Your task to perform on an android device: Clear all items from cart on walmart. Search for logitech g903 on walmart, select the first entry, add it to the cart, then select checkout. Image 0: 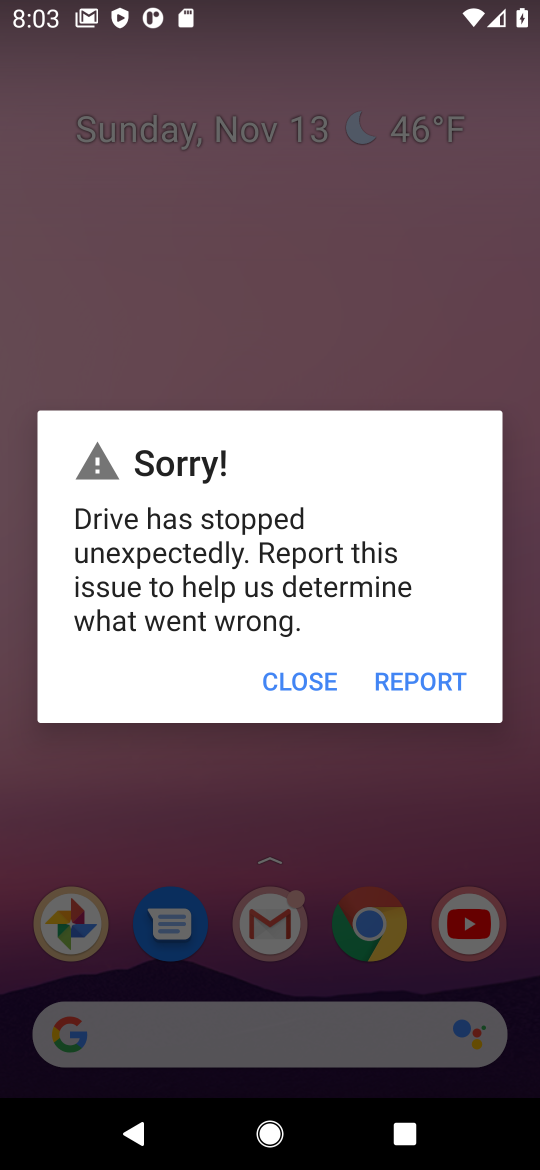
Step 0: press home button
Your task to perform on an android device: Clear all items from cart on walmart. Search for logitech g903 on walmart, select the first entry, add it to the cart, then select checkout. Image 1: 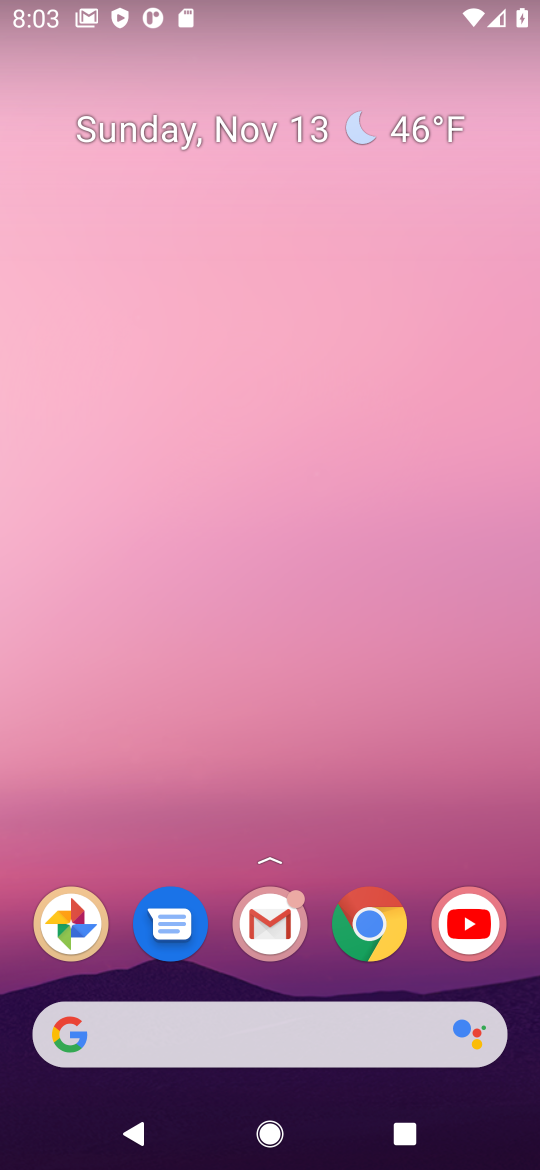
Step 1: click (370, 928)
Your task to perform on an android device: Clear all items from cart on walmart. Search for logitech g903 on walmart, select the first entry, add it to the cart, then select checkout. Image 2: 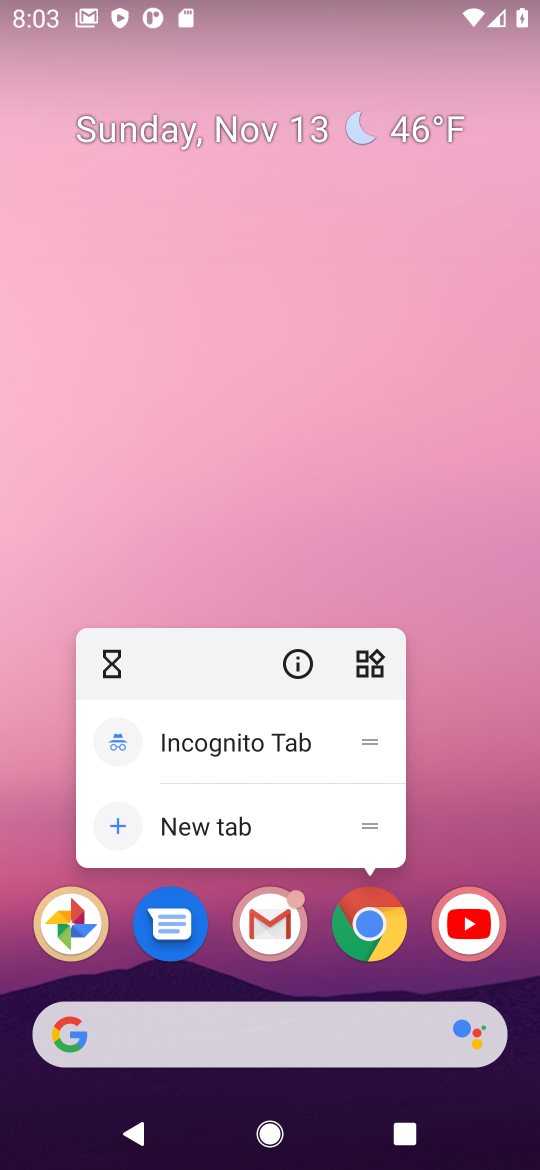
Step 2: click (370, 932)
Your task to perform on an android device: Clear all items from cart on walmart. Search for logitech g903 on walmart, select the first entry, add it to the cart, then select checkout. Image 3: 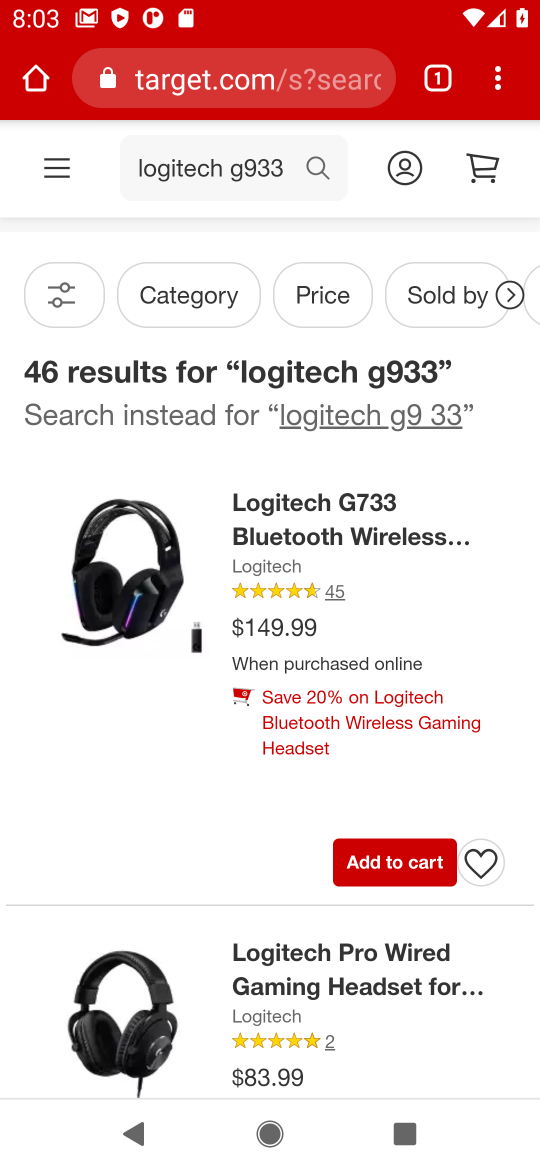
Step 3: click (286, 76)
Your task to perform on an android device: Clear all items from cart on walmart. Search for logitech g903 on walmart, select the first entry, add it to the cart, then select checkout. Image 4: 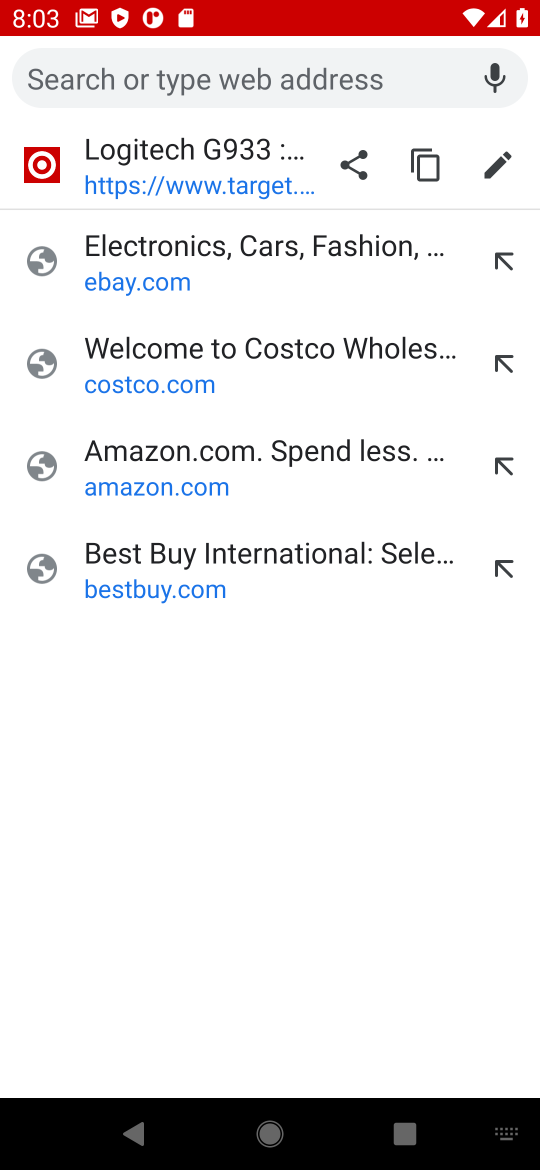
Step 4: type "walmart"
Your task to perform on an android device: Clear all items from cart on walmart. Search for logitech g903 on walmart, select the first entry, add it to the cart, then select checkout. Image 5: 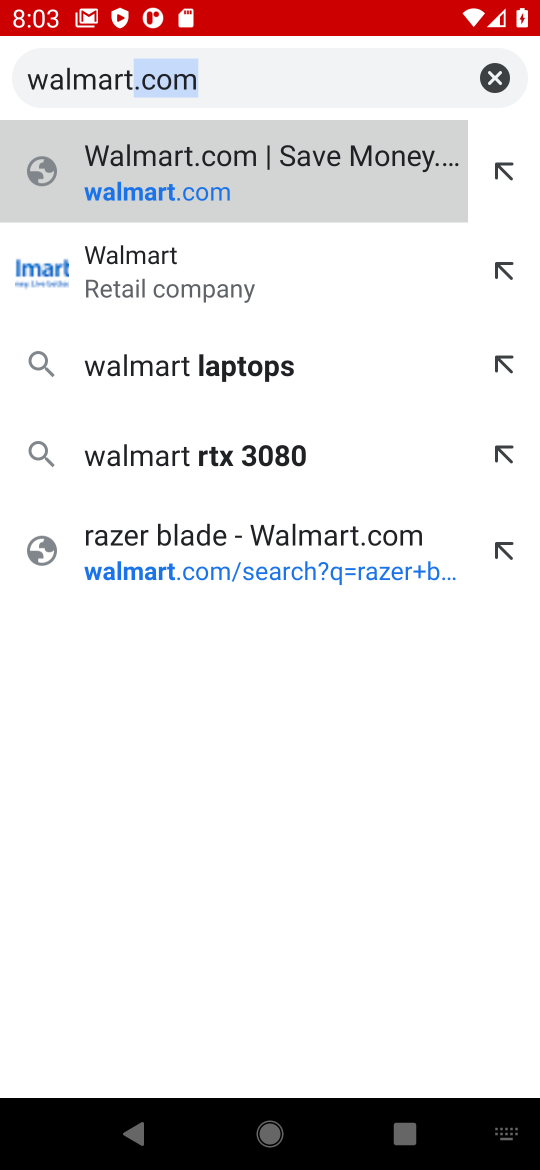
Step 5: press enter
Your task to perform on an android device: Clear all items from cart on walmart. Search for logitech g903 on walmart, select the first entry, add it to the cart, then select checkout. Image 6: 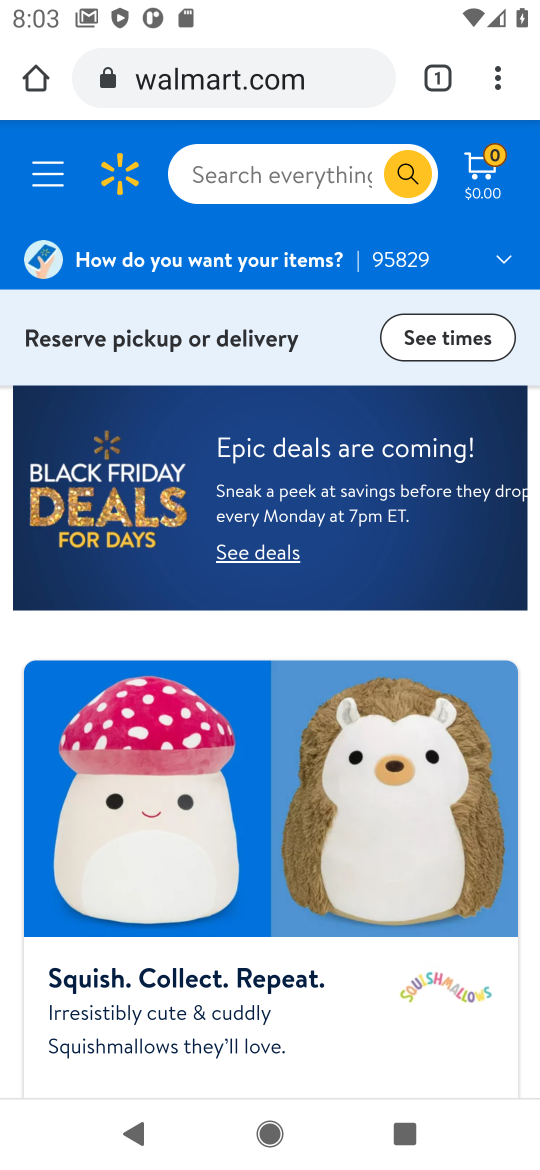
Step 6: click (280, 153)
Your task to perform on an android device: Clear all items from cart on walmart. Search for logitech g903 on walmart, select the first entry, add it to the cart, then select checkout. Image 7: 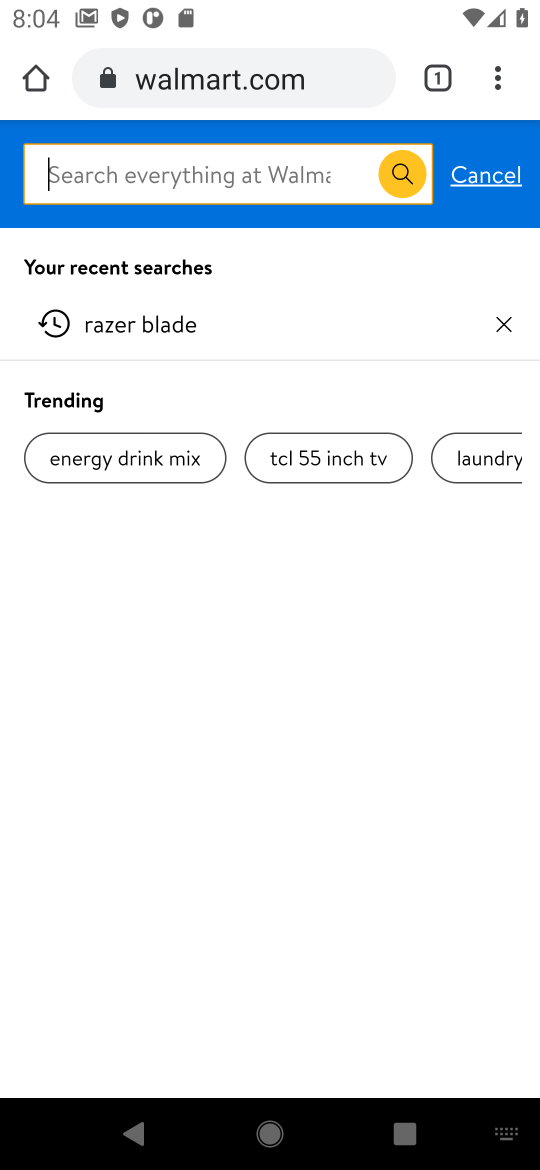
Step 7: type " logitech g903"
Your task to perform on an android device: Clear all items from cart on walmart. Search for logitech g903 on walmart, select the first entry, add it to the cart, then select checkout. Image 8: 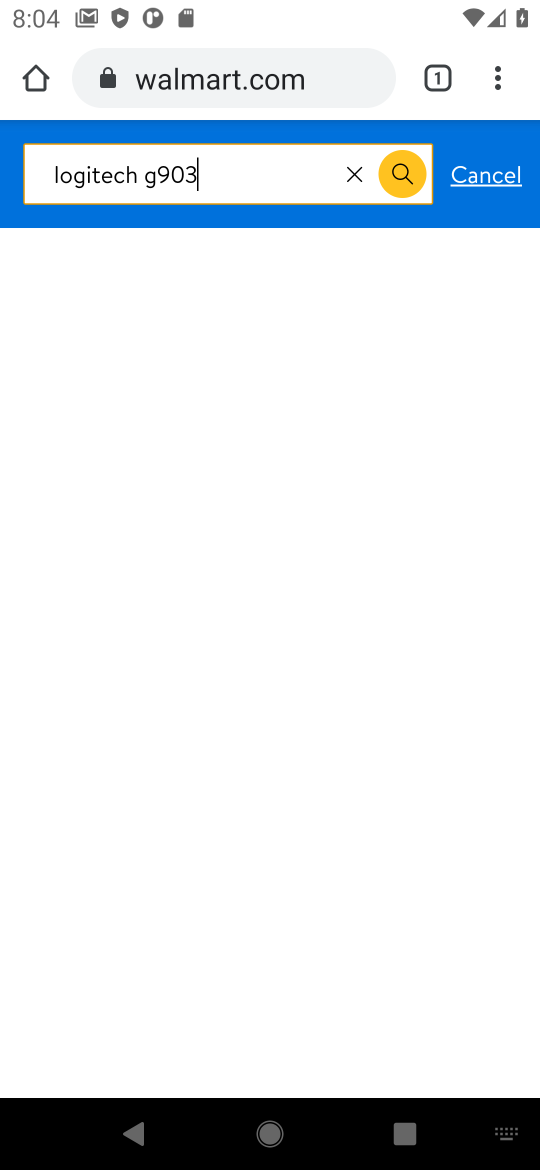
Step 8: press enter
Your task to perform on an android device: Clear all items from cart on walmart. Search for logitech g903 on walmart, select the first entry, add it to the cart, then select checkout. Image 9: 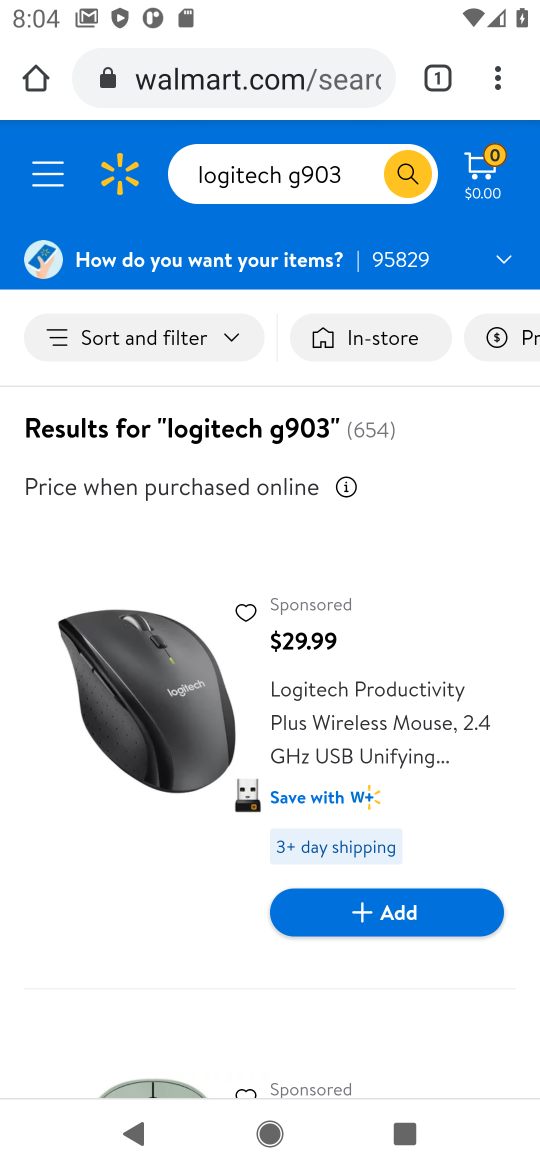
Step 9: task complete